Your task to perform on an android device: Go to Maps Image 0: 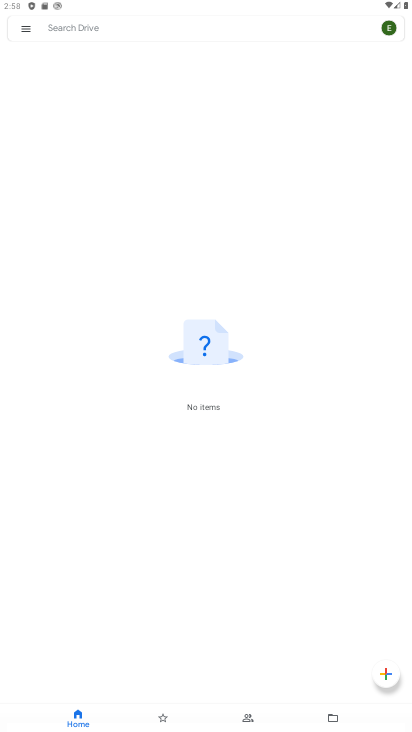
Step 0: press home button
Your task to perform on an android device: Go to Maps Image 1: 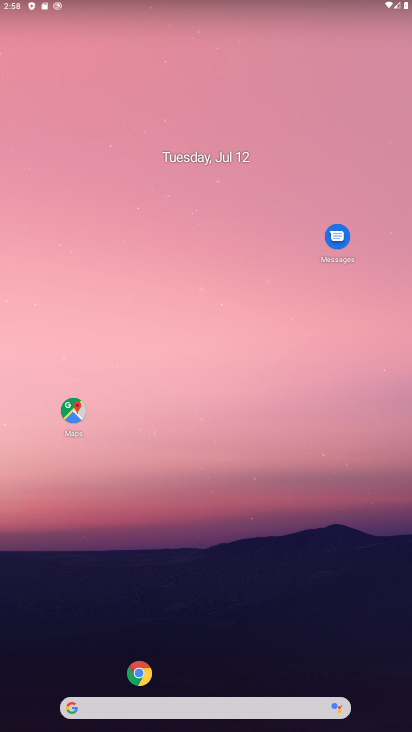
Step 1: click (58, 414)
Your task to perform on an android device: Go to Maps Image 2: 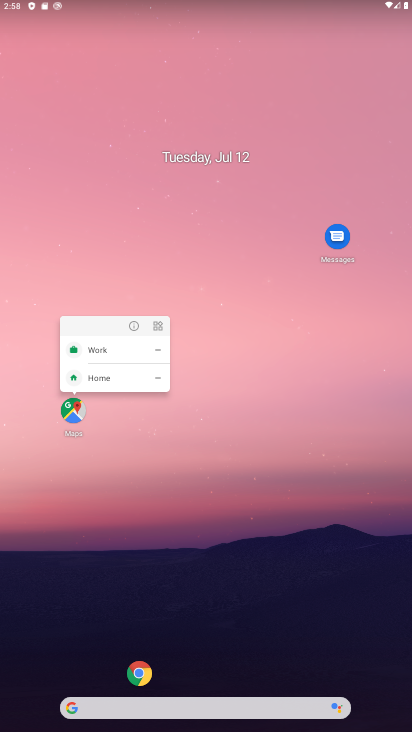
Step 2: click (74, 416)
Your task to perform on an android device: Go to Maps Image 3: 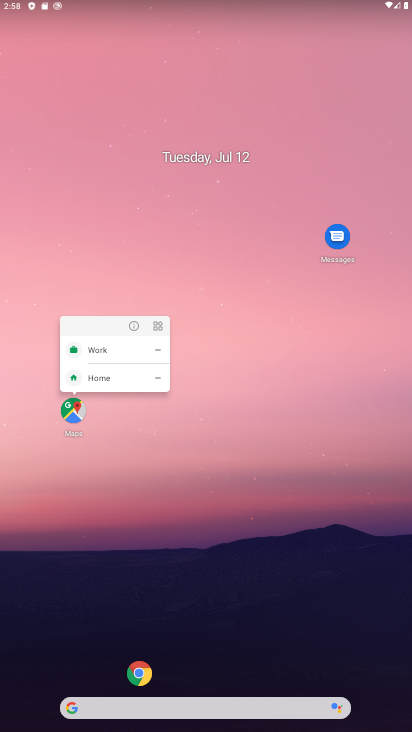
Step 3: click (72, 410)
Your task to perform on an android device: Go to Maps Image 4: 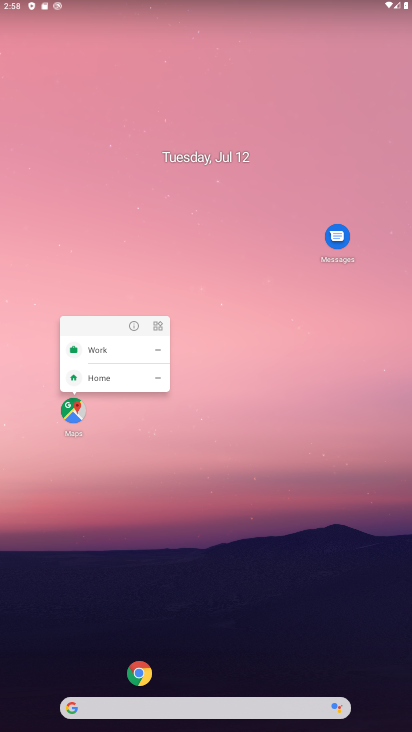
Step 4: click (74, 417)
Your task to perform on an android device: Go to Maps Image 5: 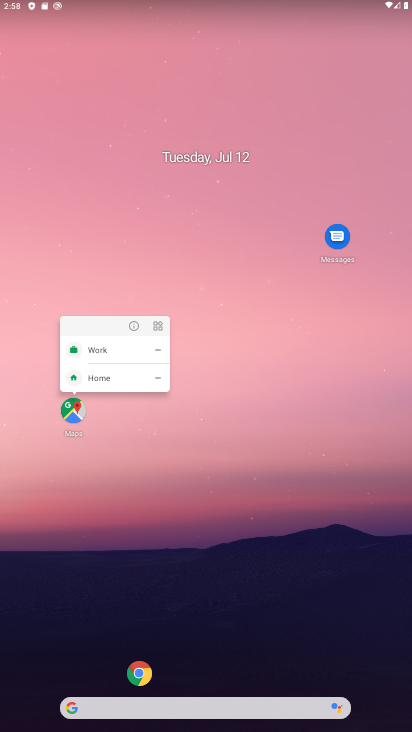
Step 5: click (74, 418)
Your task to perform on an android device: Go to Maps Image 6: 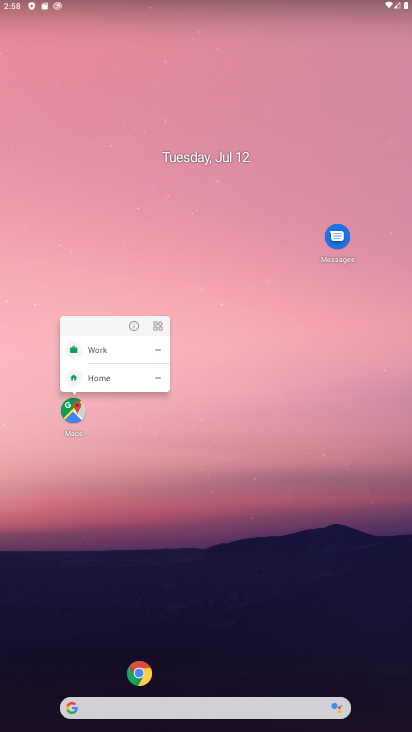
Step 6: task complete